Your task to perform on an android device: open wifi settings Image 0: 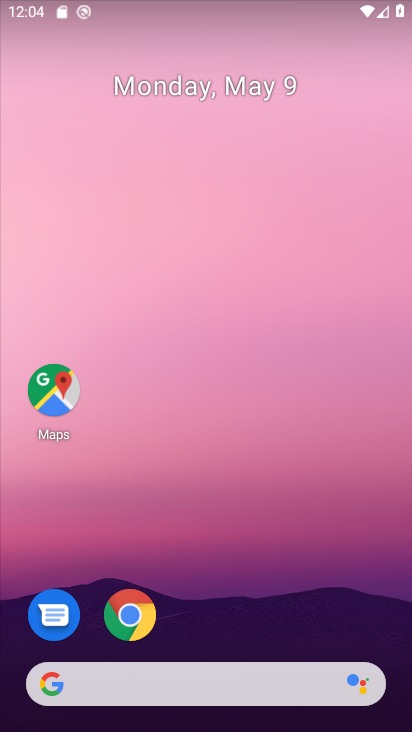
Step 0: drag from (282, 617) to (219, 30)
Your task to perform on an android device: open wifi settings Image 1: 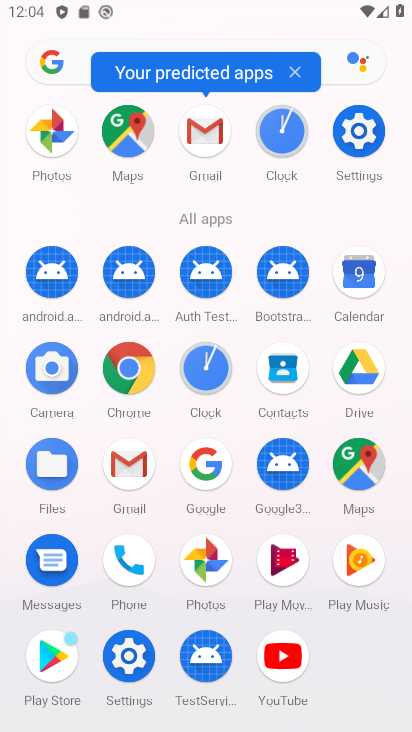
Step 1: click (358, 130)
Your task to perform on an android device: open wifi settings Image 2: 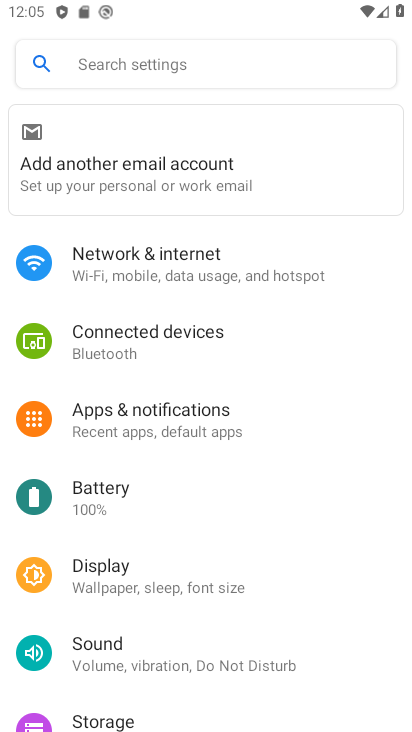
Step 2: click (172, 260)
Your task to perform on an android device: open wifi settings Image 3: 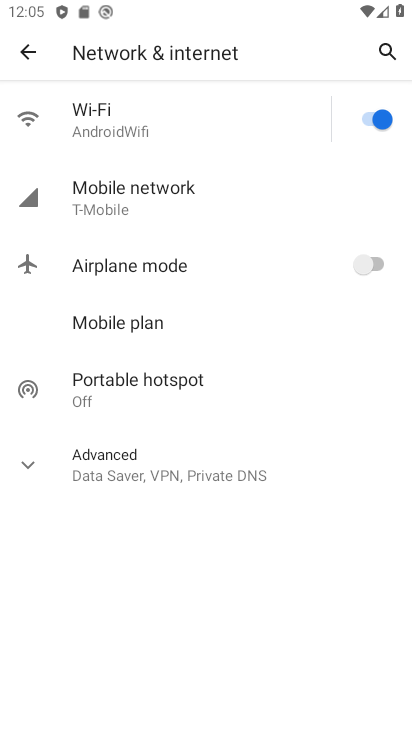
Step 3: click (87, 110)
Your task to perform on an android device: open wifi settings Image 4: 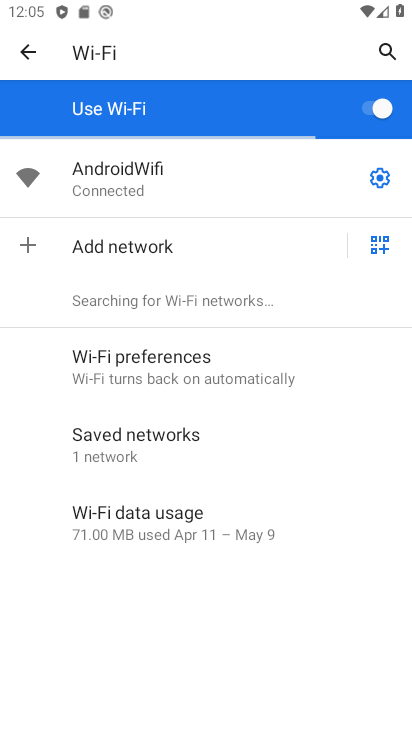
Step 4: click (382, 189)
Your task to perform on an android device: open wifi settings Image 5: 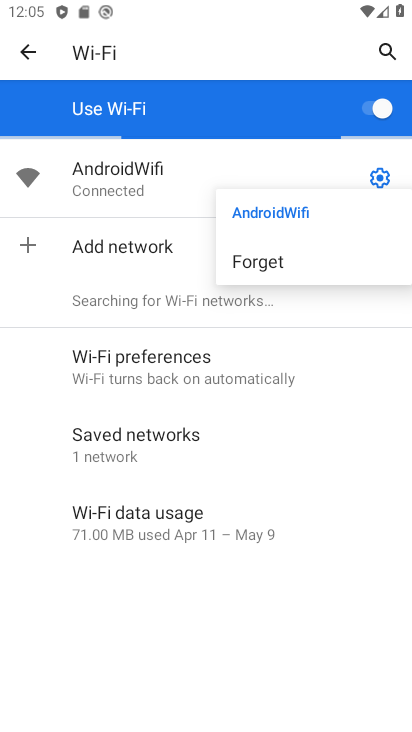
Step 5: click (382, 175)
Your task to perform on an android device: open wifi settings Image 6: 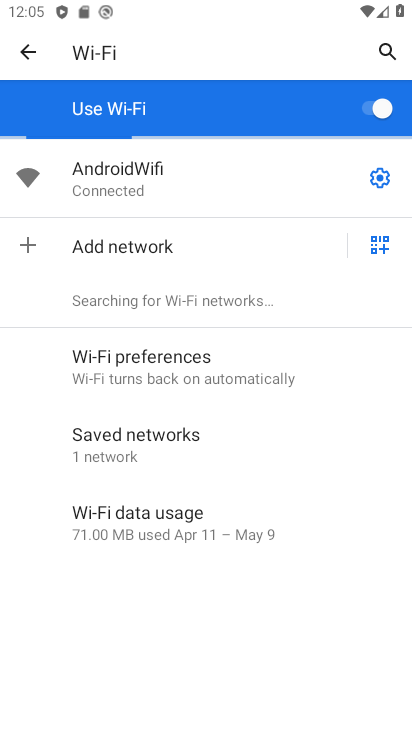
Step 6: click (382, 178)
Your task to perform on an android device: open wifi settings Image 7: 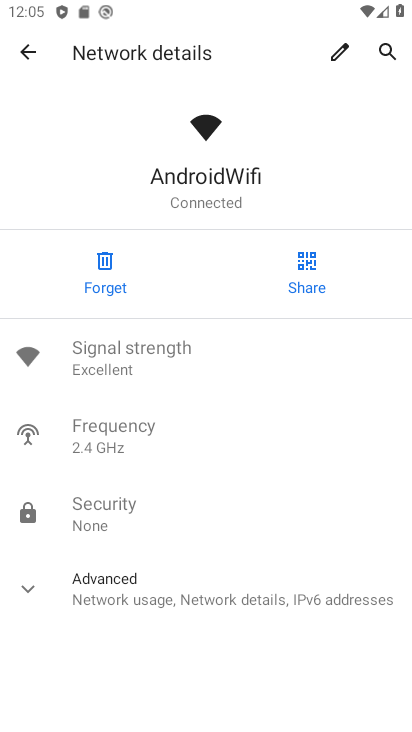
Step 7: task complete